Your task to perform on an android device: toggle priority inbox in the gmail app Image 0: 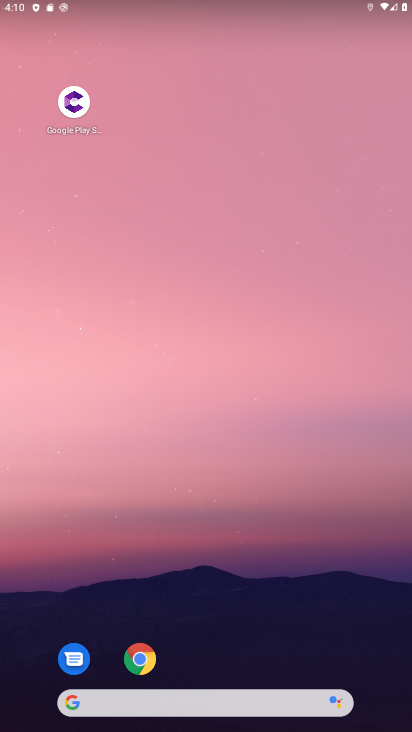
Step 0: press home button
Your task to perform on an android device: toggle priority inbox in the gmail app Image 1: 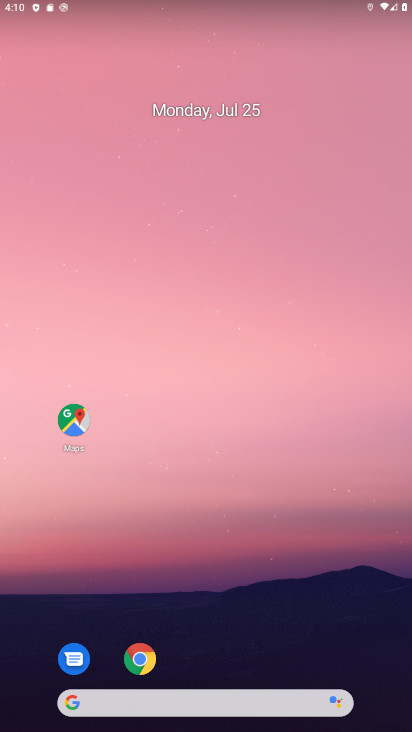
Step 1: drag from (210, 562) to (226, 220)
Your task to perform on an android device: toggle priority inbox in the gmail app Image 2: 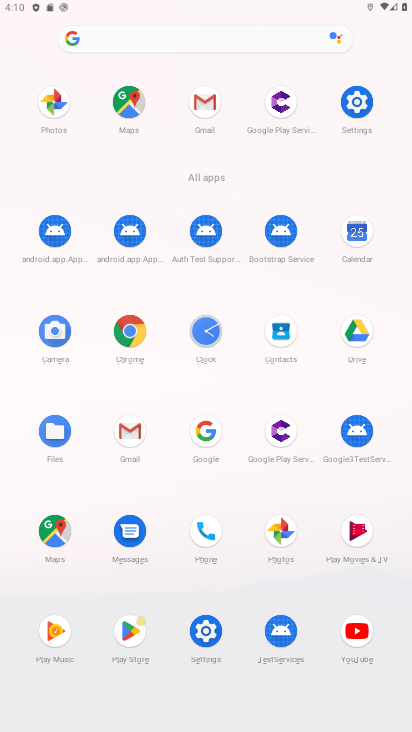
Step 2: click (203, 125)
Your task to perform on an android device: toggle priority inbox in the gmail app Image 3: 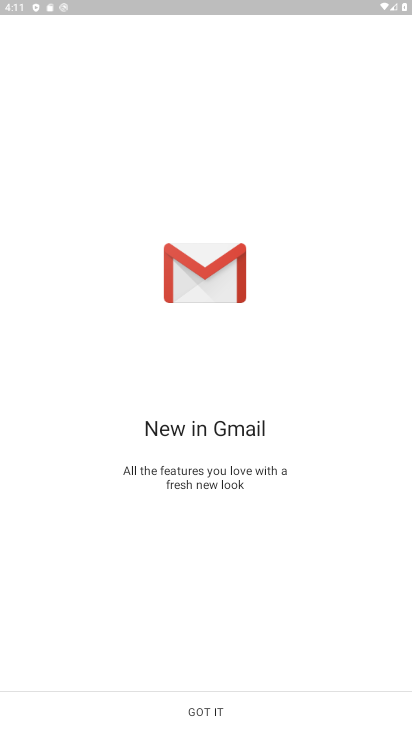
Step 3: click (213, 709)
Your task to perform on an android device: toggle priority inbox in the gmail app Image 4: 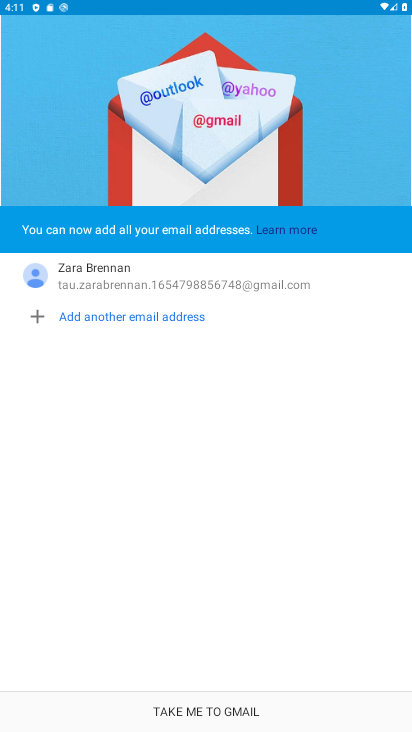
Step 4: click (213, 709)
Your task to perform on an android device: toggle priority inbox in the gmail app Image 5: 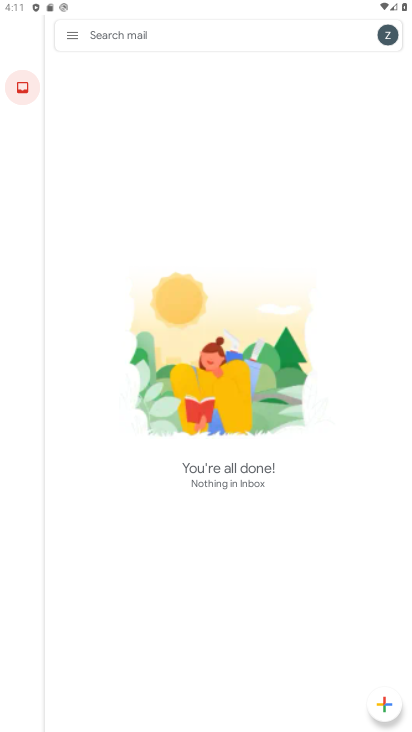
Step 5: click (73, 27)
Your task to perform on an android device: toggle priority inbox in the gmail app Image 6: 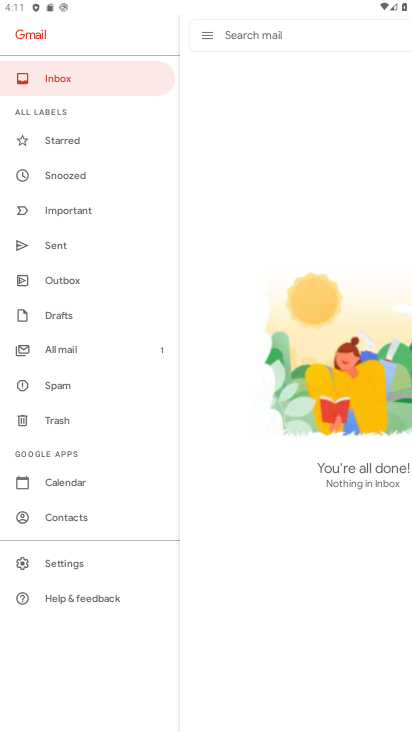
Step 6: click (66, 558)
Your task to perform on an android device: toggle priority inbox in the gmail app Image 7: 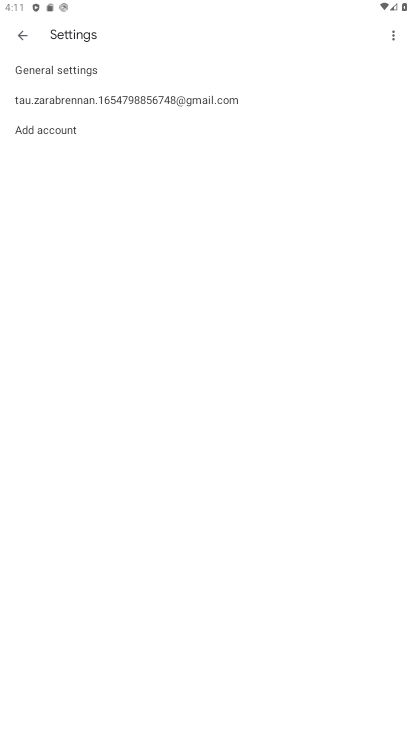
Step 7: click (154, 101)
Your task to perform on an android device: toggle priority inbox in the gmail app Image 8: 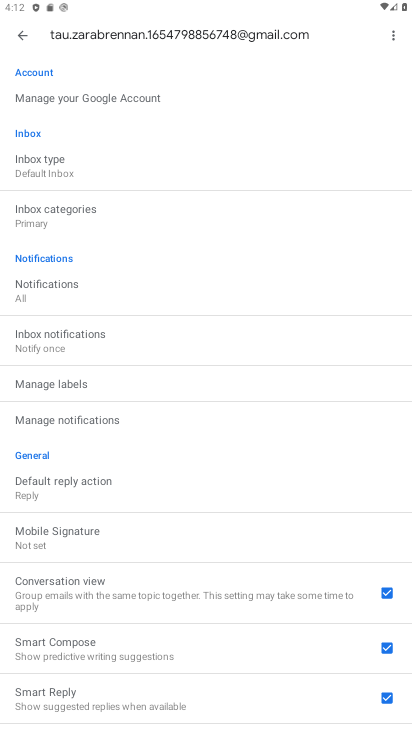
Step 8: drag from (128, 333) to (140, 427)
Your task to perform on an android device: toggle priority inbox in the gmail app Image 9: 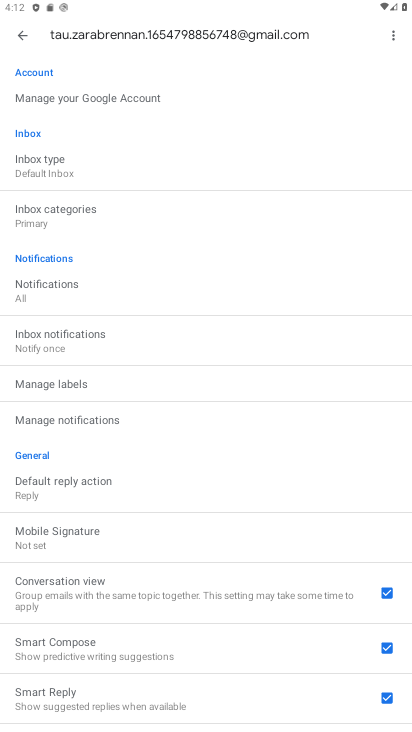
Step 9: click (64, 172)
Your task to perform on an android device: toggle priority inbox in the gmail app Image 10: 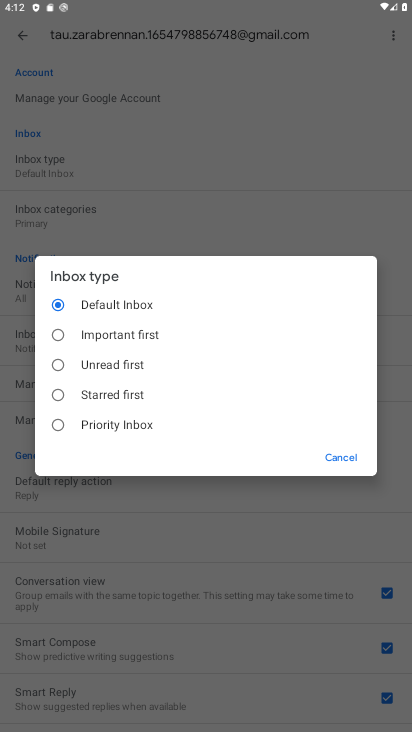
Step 10: click (58, 432)
Your task to perform on an android device: toggle priority inbox in the gmail app Image 11: 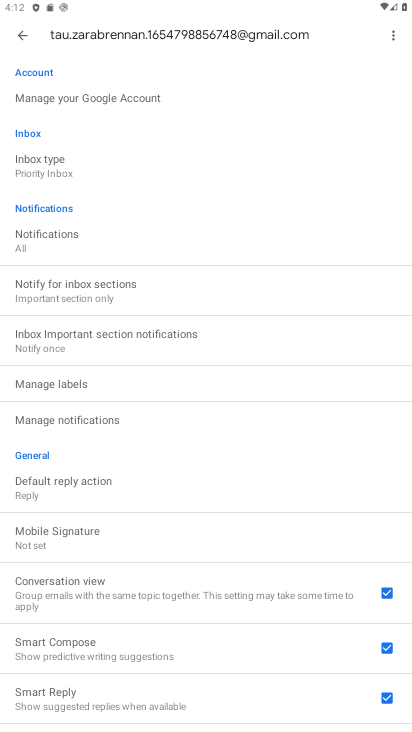
Step 11: task complete